Your task to perform on an android device: What's the weather going to be this weekend? Image 0: 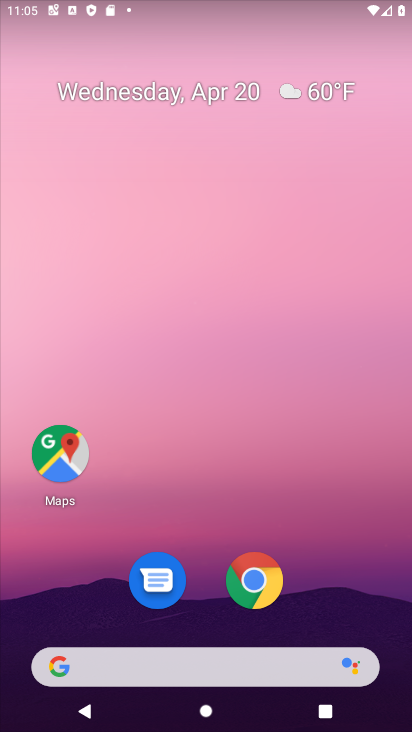
Step 0: click (198, 51)
Your task to perform on an android device: What's the weather going to be this weekend? Image 1: 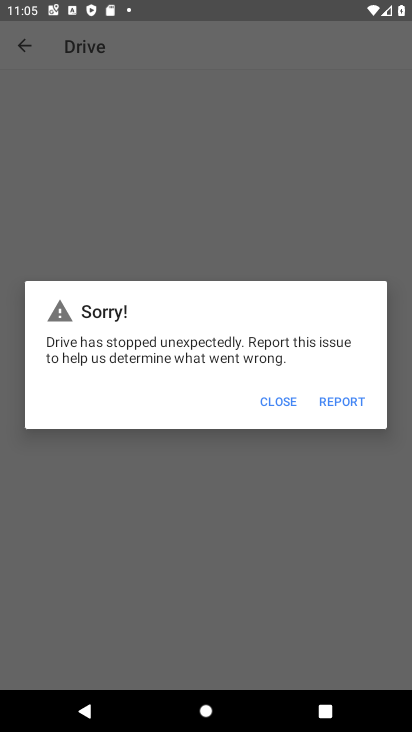
Step 1: click (268, 403)
Your task to perform on an android device: What's the weather going to be this weekend? Image 2: 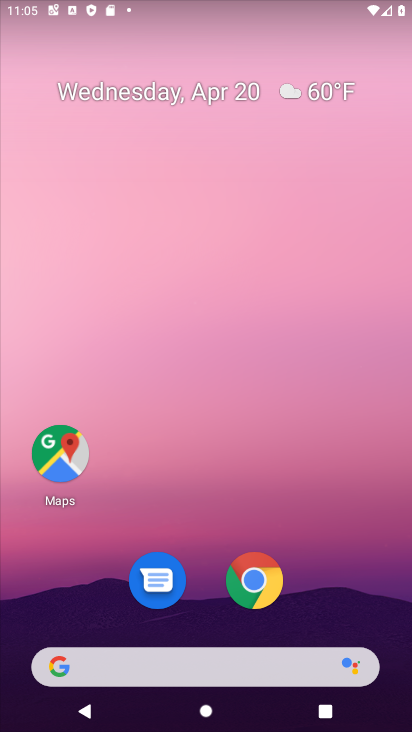
Step 2: drag from (21, 319) to (387, 345)
Your task to perform on an android device: What's the weather going to be this weekend? Image 3: 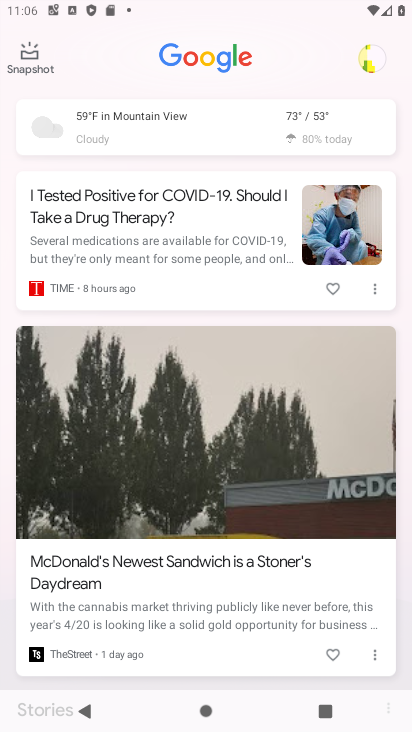
Step 3: click (103, 137)
Your task to perform on an android device: What's the weather going to be this weekend? Image 4: 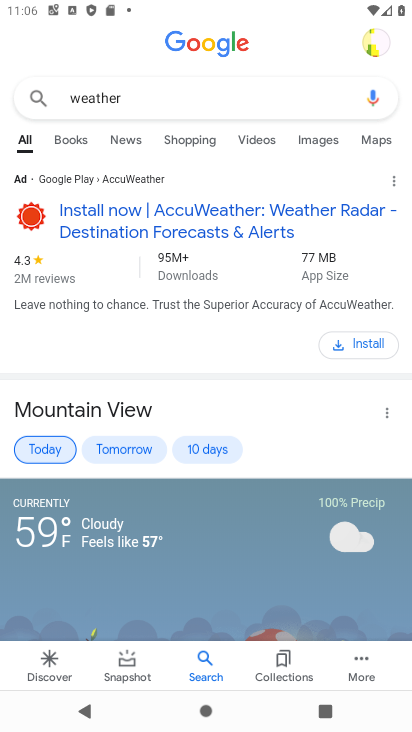
Step 4: click (158, 103)
Your task to perform on an android device: What's the weather going to be this weekend? Image 5: 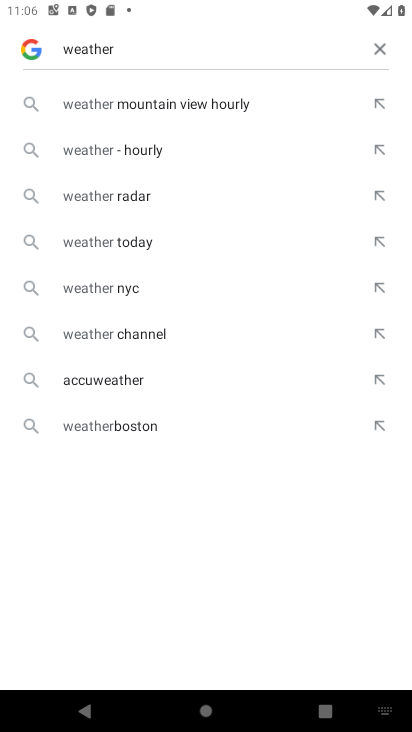
Step 5: type " weekend"
Your task to perform on an android device: What's the weather going to be this weekend? Image 6: 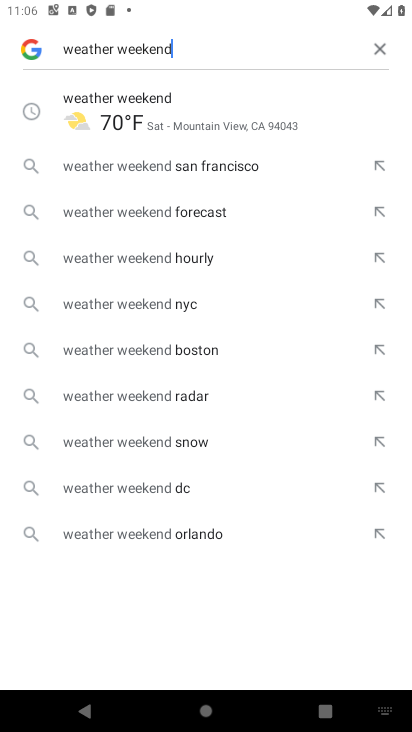
Step 6: click (152, 124)
Your task to perform on an android device: What's the weather going to be this weekend? Image 7: 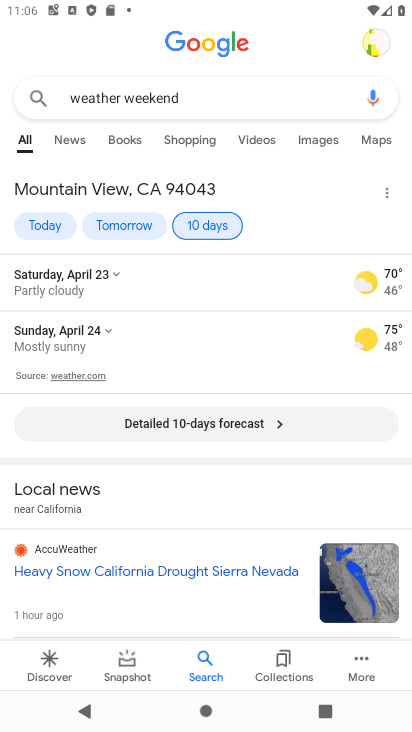
Step 7: task complete